Your task to perform on an android device: move an email to a new category in the gmail app Image 0: 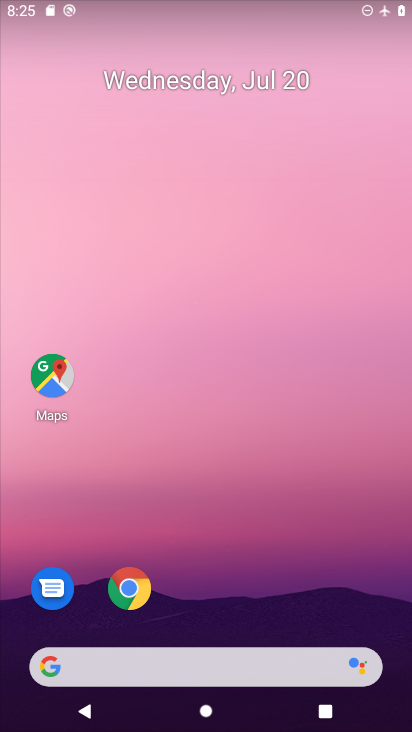
Step 0: drag from (58, 698) to (331, 164)
Your task to perform on an android device: move an email to a new category in the gmail app Image 1: 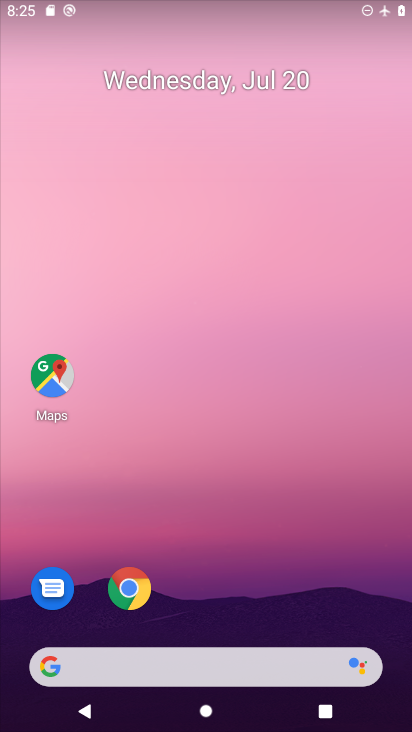
Step 1: drag from (19, 692) to (309, 60)
Your task to perform on an android device: move an email to a new category in the gmail app Image 2: 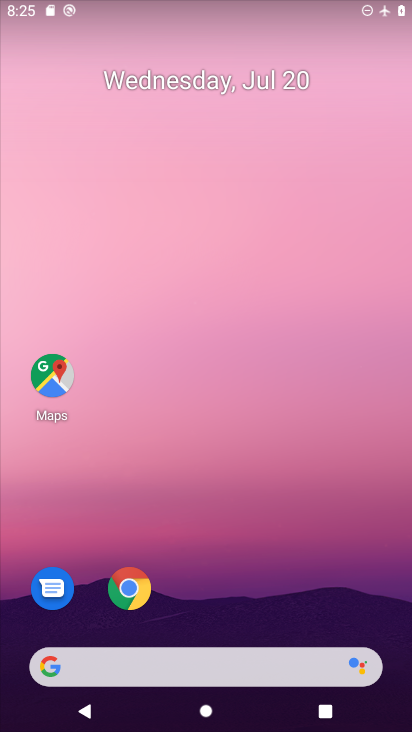
Step 2: drag from (31, 686) to (297, 2)
Your task to perform on an android device: move an email to a new category in the gmail app Image 3: 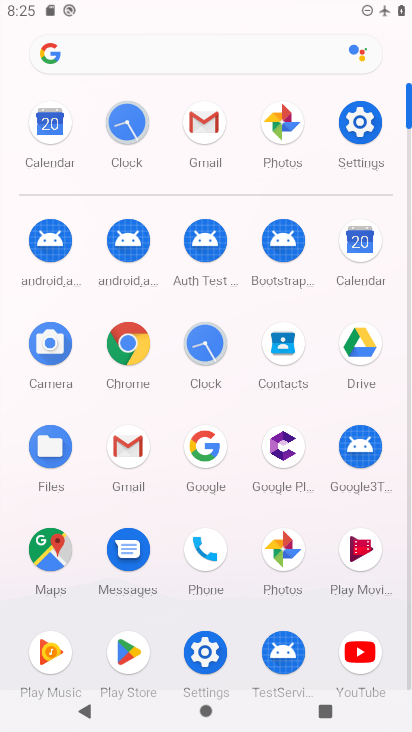
Step 3: click (115, 445)
Your task to perform on an android device: move an email to a new category in the gmail app Image 4: 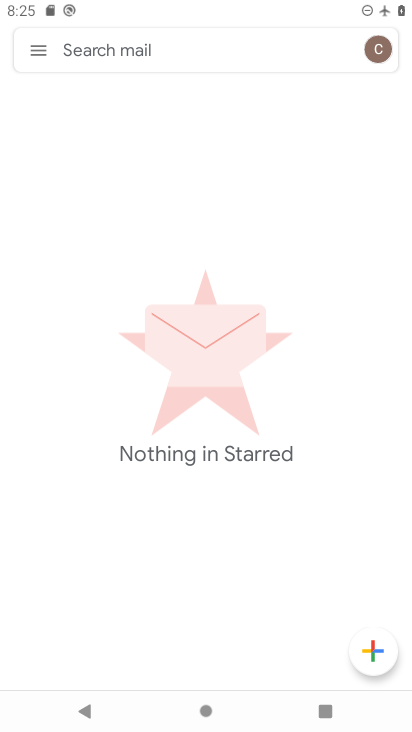
Step 4: click (40, 56)
Your task to perform on an android device: move an email to a new category in the gmail app Image 5: 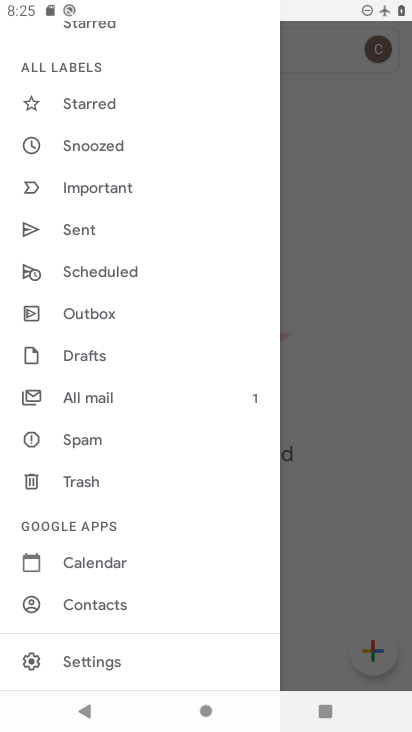
Step 5: drag from (169, 134) to (184, 727)
Your task to perform on an android device: move an email to a new category in the gmail app Image 6: 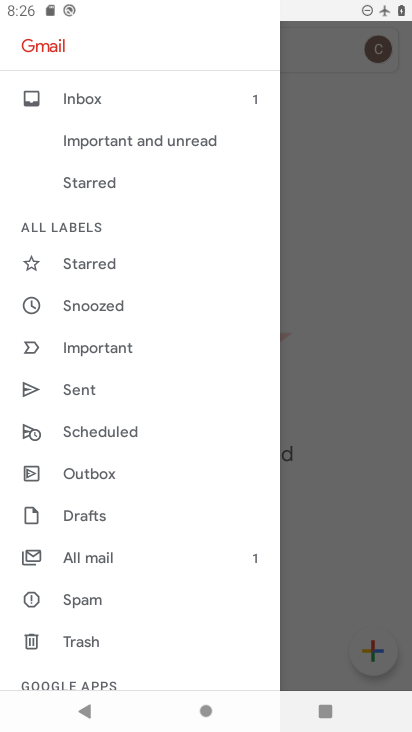
Step 6: click (133, 86)
Your task to perform on an android device: move an email to a new category in the gmail app Image 7: 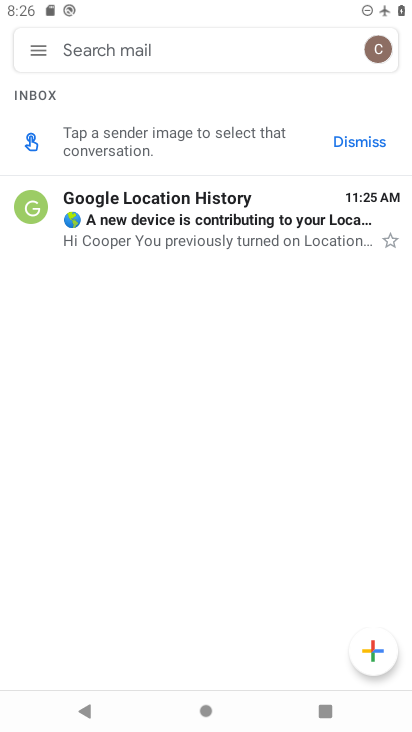
Step 7: task complete